Your task to perform on an android device: set the timer Image 0: 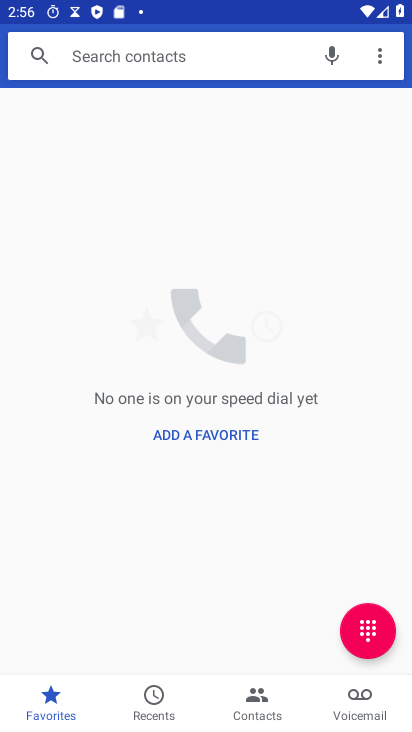
Step 0: press home button
Your task to perform on an android device: set the timer Image 1: 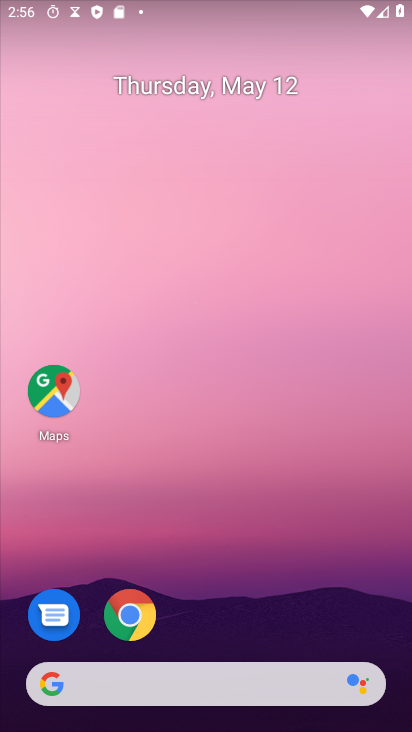
Step 1: drag from (90, 515) to (335, 163)
Your task to perform on an android device: set the timer Image 2: 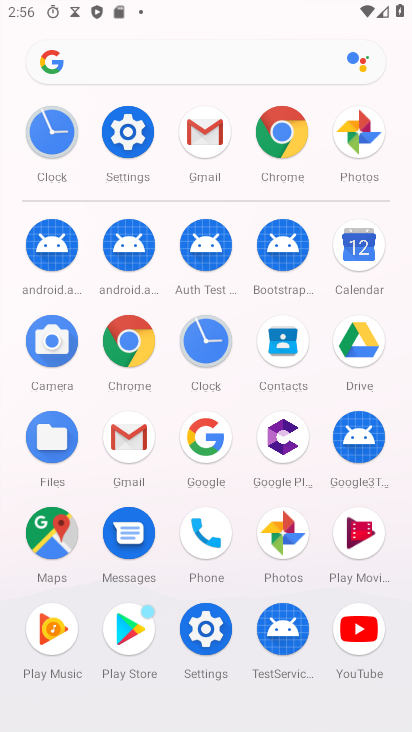
Step 2: click (199, 338)
Your task to perform on an android device: set the timer Image 3: 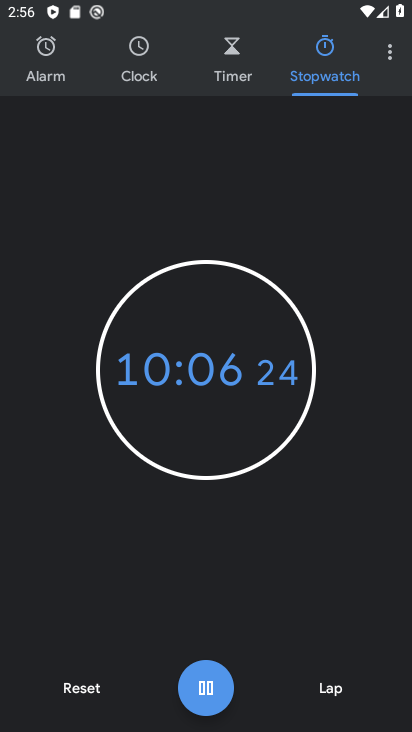
Step 3: click (234, 57)
Your task to perform on an android device: set the timer Image 4: 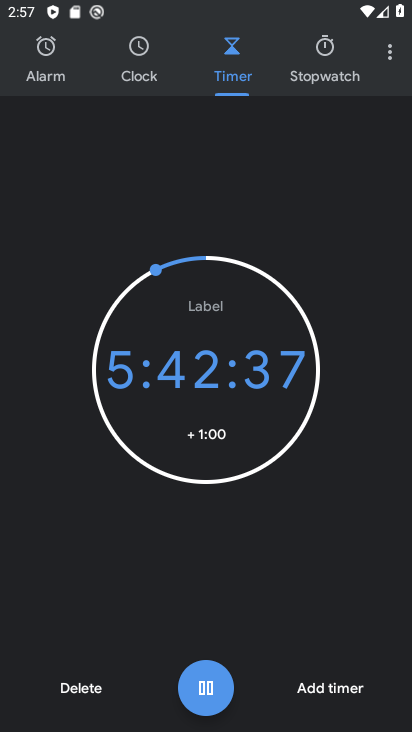
Step 4: click (235, 63)
Your task to perform on an android device: set the timer Image 5: 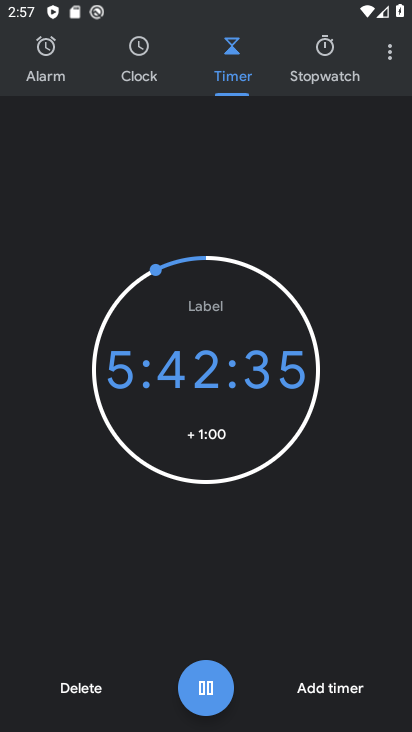
Step 5: click (71, 692)
Your task to perform on an android device: set the timer Image 6: 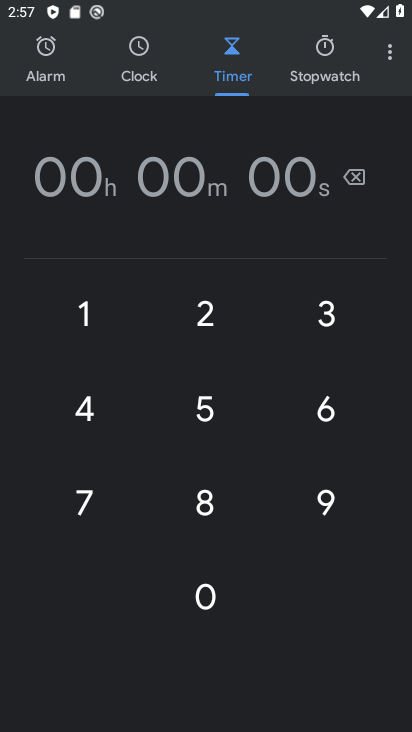
Step 6: click (199, 582)
Your task to perform on an android device: set the timer Image 7: 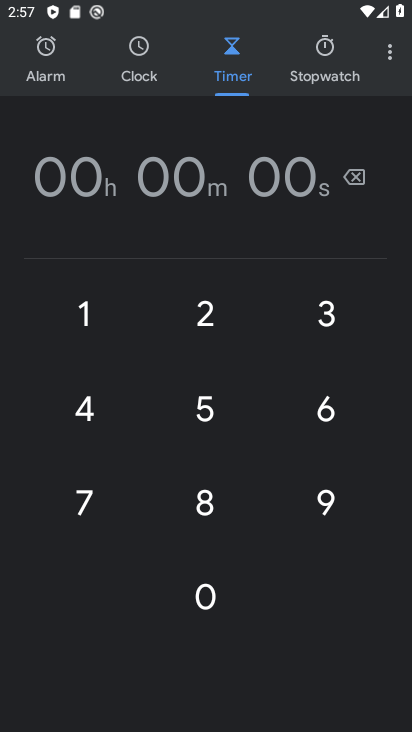
Step 7: click (90, 307)
Your task to perform on an android device: set the timer Image 8: 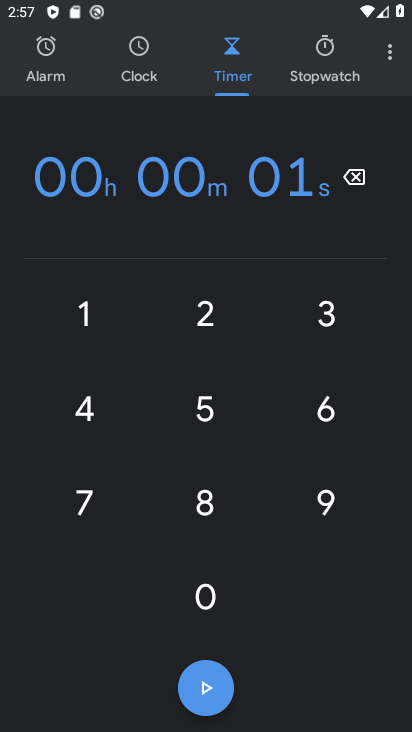
Step 8: click (203, 591)
Your task to perform on an android device: set the timer Image 9: 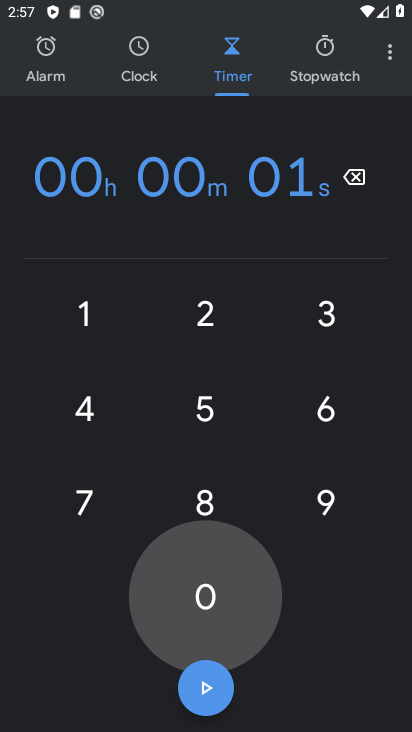
Step 9: click (203, 591)
Your task to perform on an android device: set the timer Image 10: 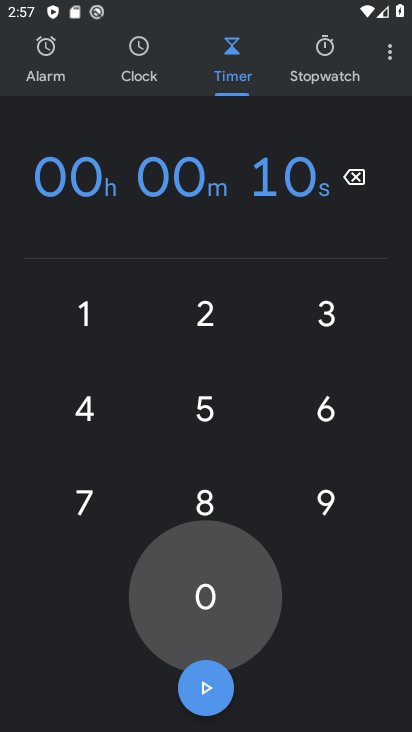
Step 10: click (203, 591)
Your task to perform on an android device: set the timer Image 11: 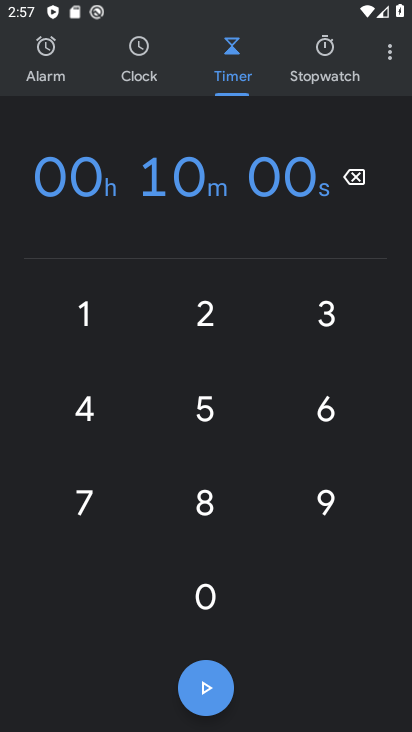
Step 11: click (200, 590)
Your task to perform on an android device: set the timer Image 12: 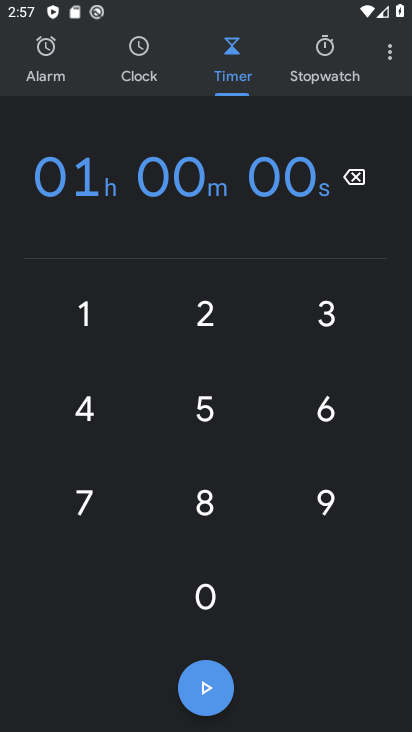
Step 12: click (193, 698)
Your task to perform on an android device: set the timer Image 13: 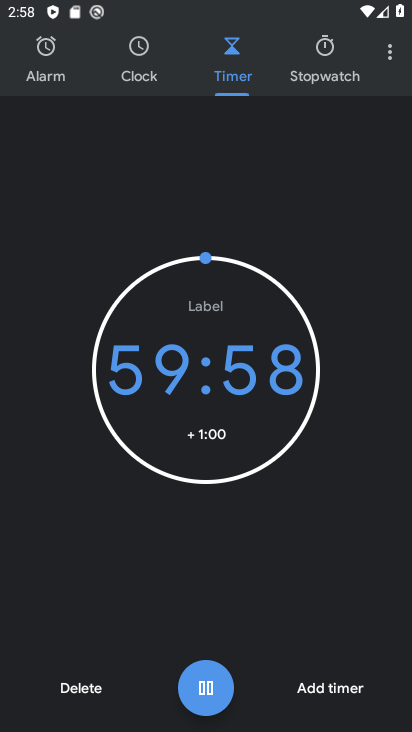
Step 13: task complete